Your task to perform on an android device: Is it going to rain tomorrow? Image 0: 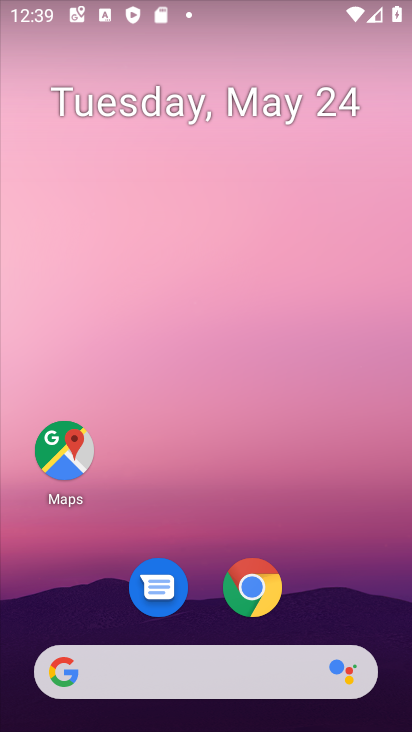
Step 0: drag from (232, 723) to (217, 3)
Your task to perform on an android device: Is it going to rain tomorrow? Image 1: 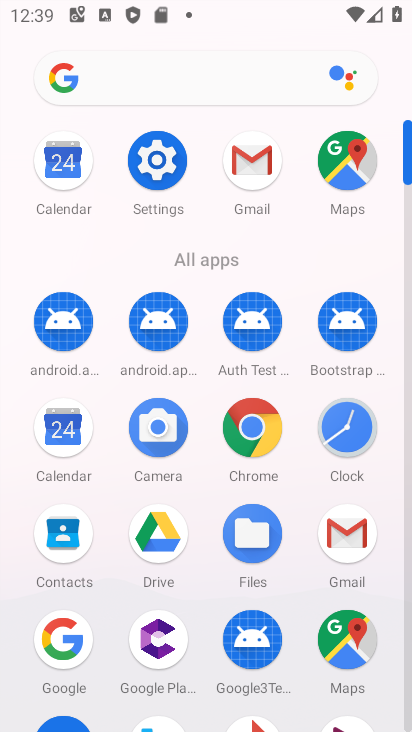
Step 1: click (172, 90)
Your task to perform on an android device: Is it going to rain tomorrow? Image 2: 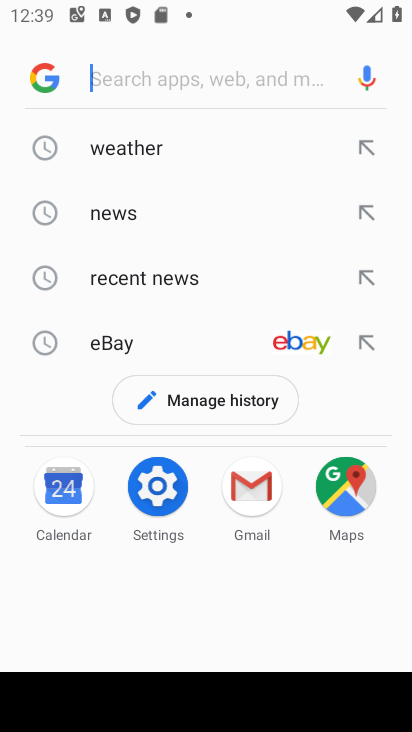
Step 2: type "Is it going to rain tomorrow?"
Your task to perform on an android device: Is it going to rain tomorrow? Image 3: 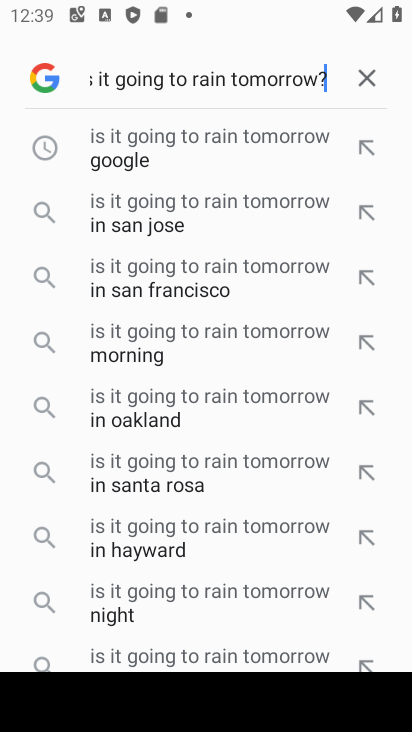
Step 3: click (246, 155)
Your task to perform on an android device: Is it going to rain tomorrow? Image 4: 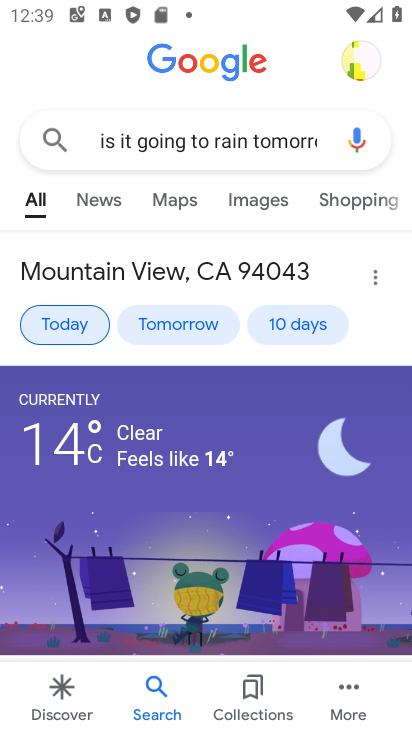
Step 4: task complete